Your task to perform on an android device: Add macbook air to the cart on target, then select checkout. Image 0: 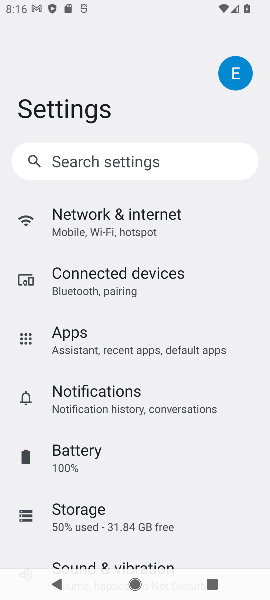
Step 0: press home button
Your task to perform on an android device: Add macbook air to the cart on target, then select checkout. Image 1: 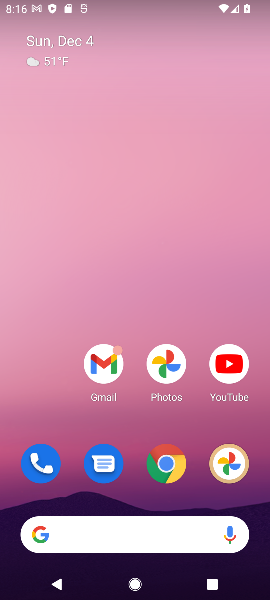
Step 1: click (114, 543)
Your task to perform on an android device: Add macbook air to the cart on target, then select checkout. Image 2: 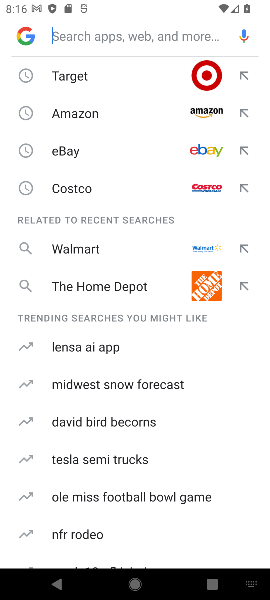
Step 2: click (132, 67)
Your task to perform on an android device: Add macbook air to the cart on target, then select checkout. Image 3: 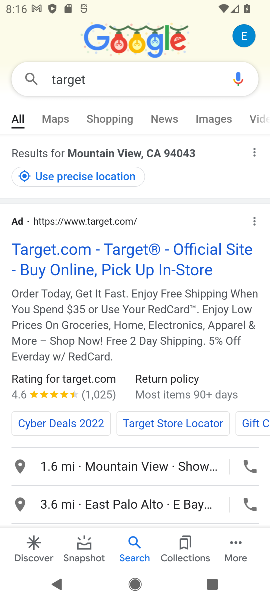
Step 3: click (92, 250)
Your task to perform on an android device: Add macbook air to the cart on target, then select checkout. Image 4: 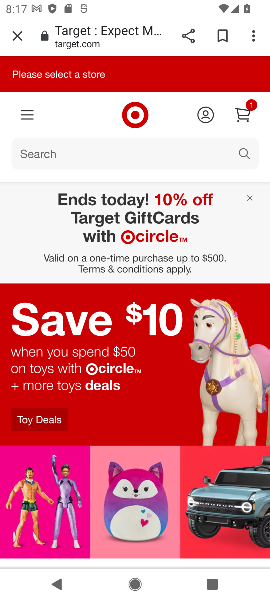
Step 4: task complete